Your task to perform on an android device: delete the emails in spam in the gmail app Image 0: 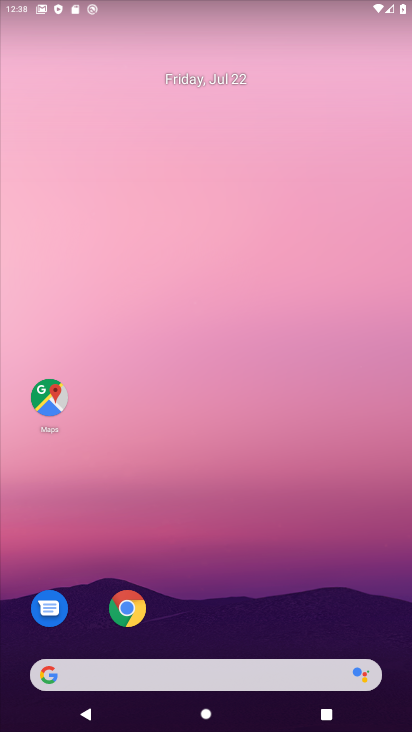
Step 0: drag from (389, 672) to (311, 166)
Your task to perform on an android device: delete the emails in spam in the gmail app Image 1: 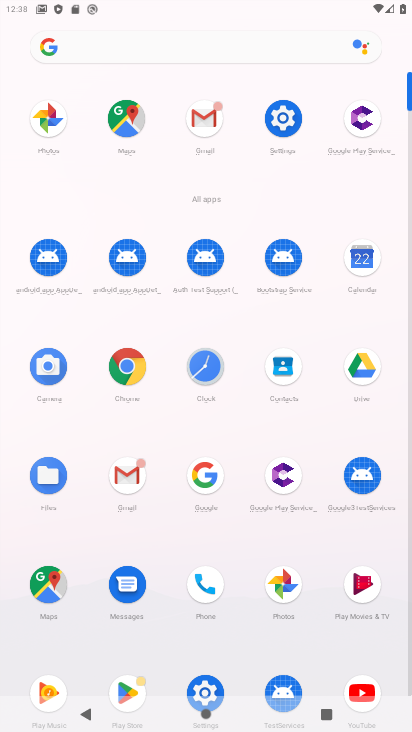
Step 1: click (123, 477)
Your task to perform on an android device: delete the emails in spam in the gmail app Image 2: 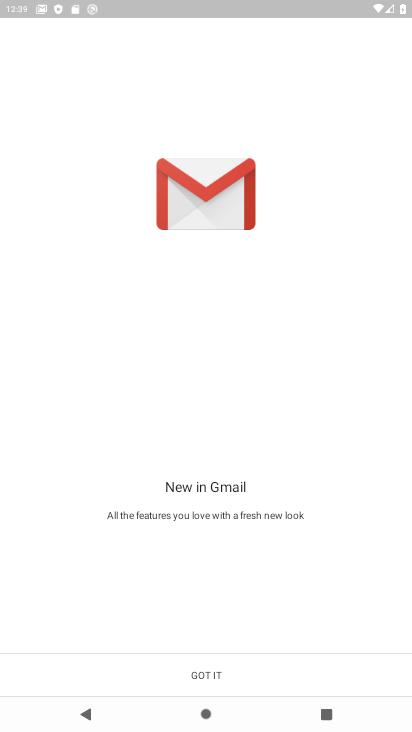
Step 2: click (194, 670)
Your task to perform on an android device: delete the emails in spam in the gmail app Image 3: 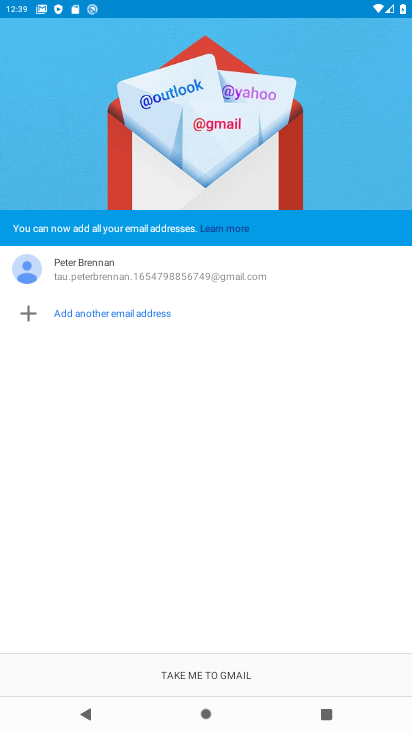
Step 3: click (194, 670)
Your task to perform on an android device: delete the emails in spam in the gmail app Image 4: 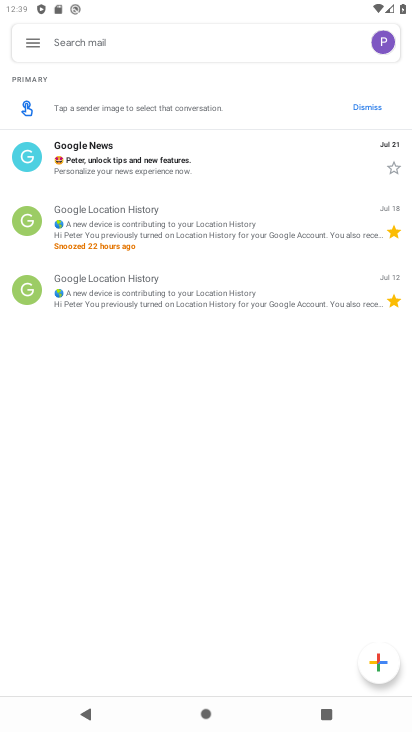
Step 4: click (32, 42)
Your task to perform on an android device: delete the emails in spam in the gmail app Image 5: 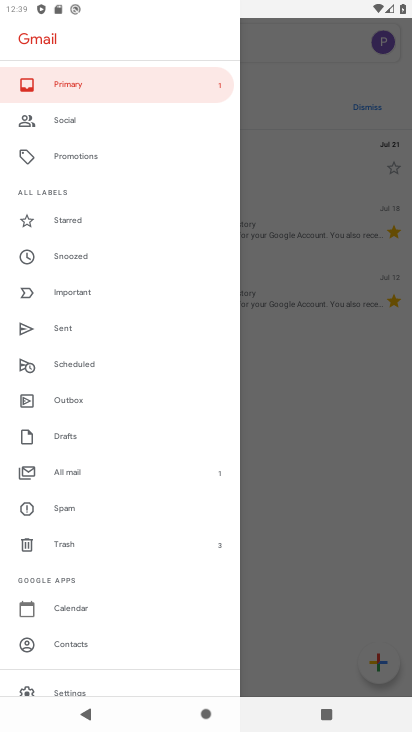
Step 5: click (66, 506)
Your task to perform on an android device: delete the emails in spam in the gmail app Image 6: 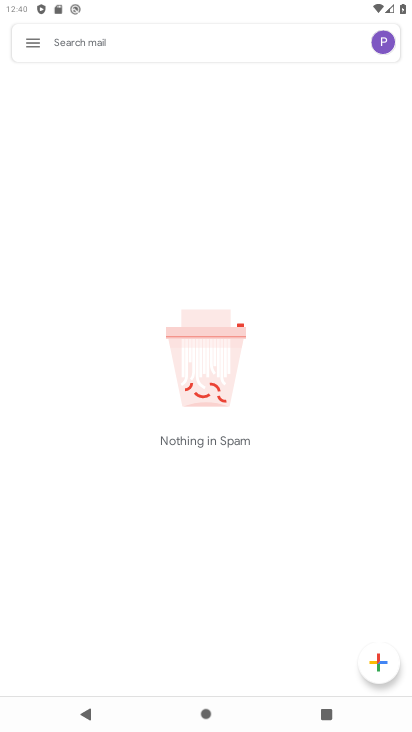
Step 6: task complete